Your task to perform on an android device: turn off location history Image 0: 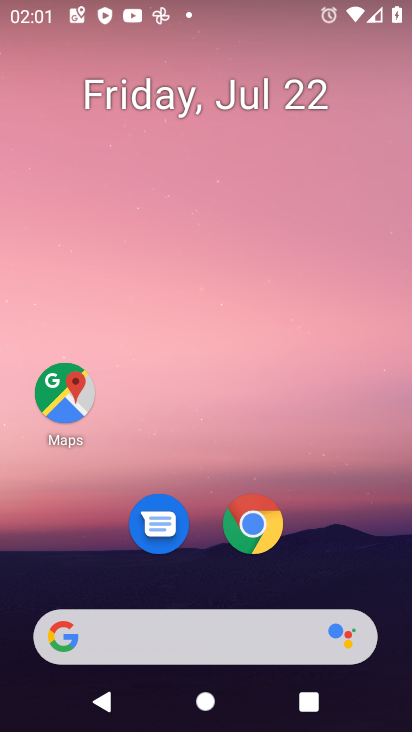
Step 0: drag from (172, 646) to (226, 148)
Your task to perform on an android device: turn off location history Image 1: 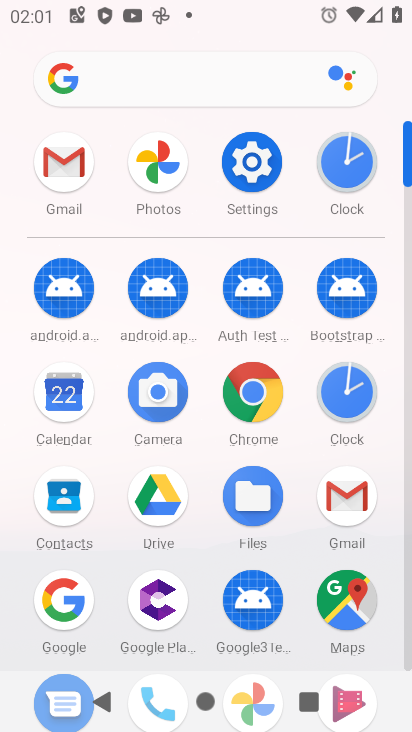
Step 1: click (350, 611)
Your task to perform on an android device: turn off location history Image 2: 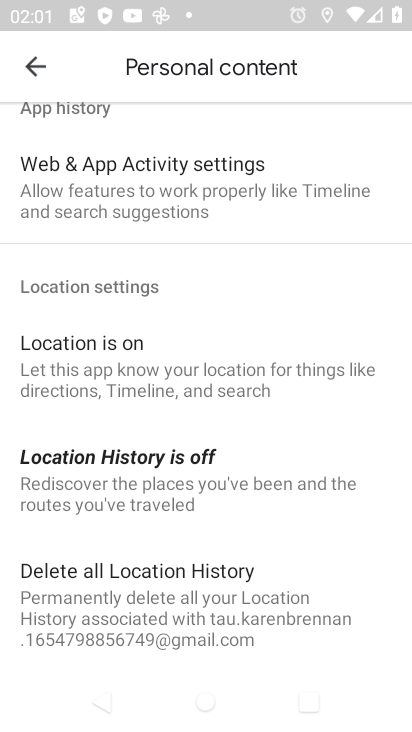
Step 2: click (183, 471)
Your task to perform on an android device: turn off location history Image 3: 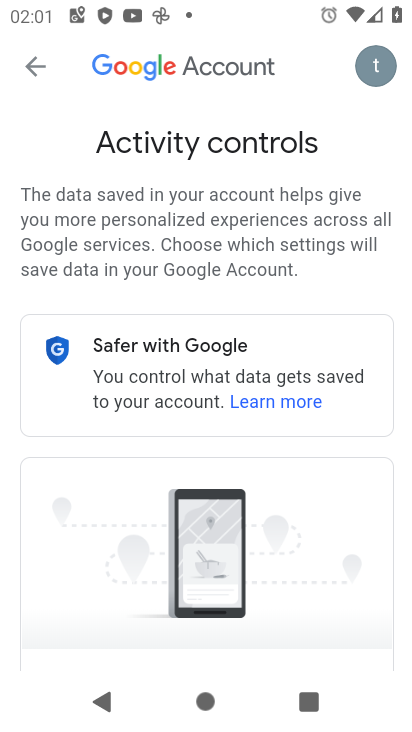
Step 3: task complete